Your task to perform on an android device: Search for pizza restaurants on Maps Image 0: 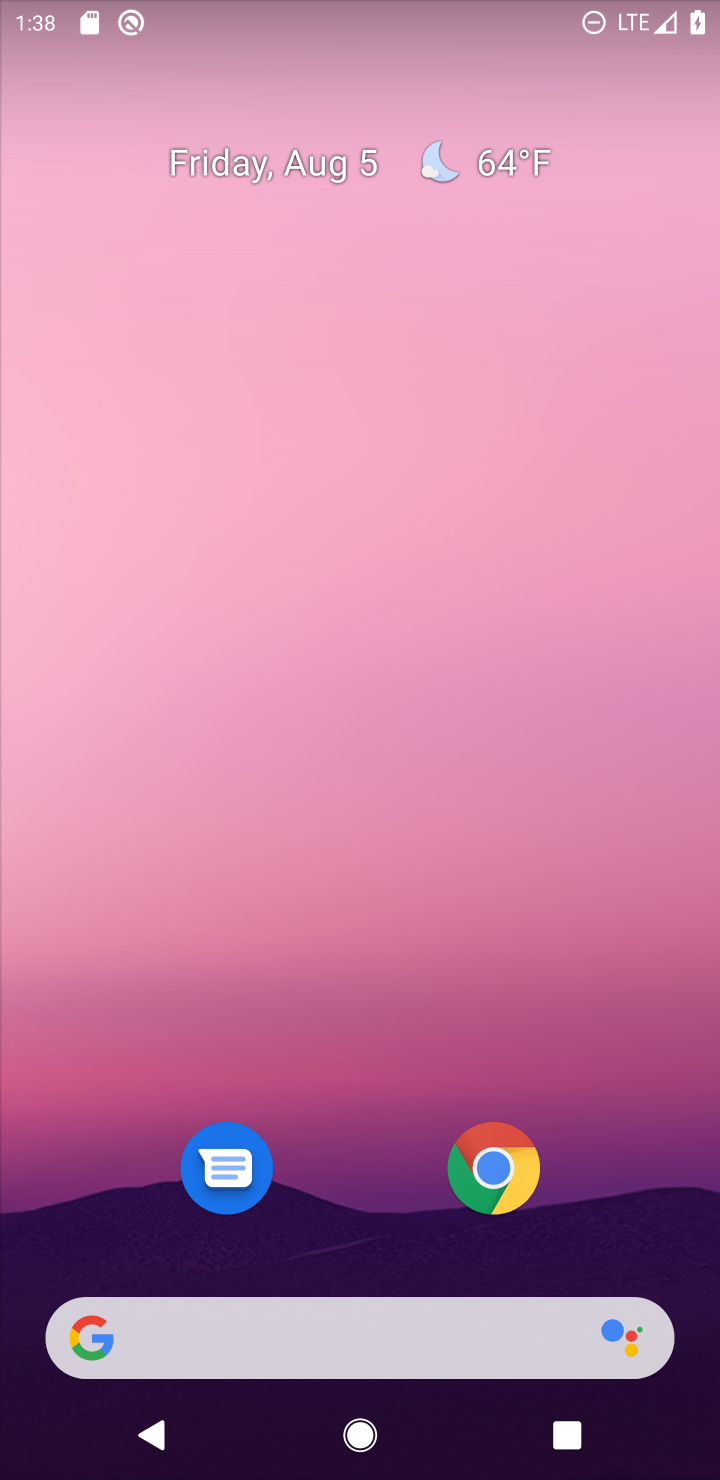
Step 0: drag from (687, 1247) to (401, 3)
Your task to perform on an android device: Search for pizza restaurants on Maps Image 1: 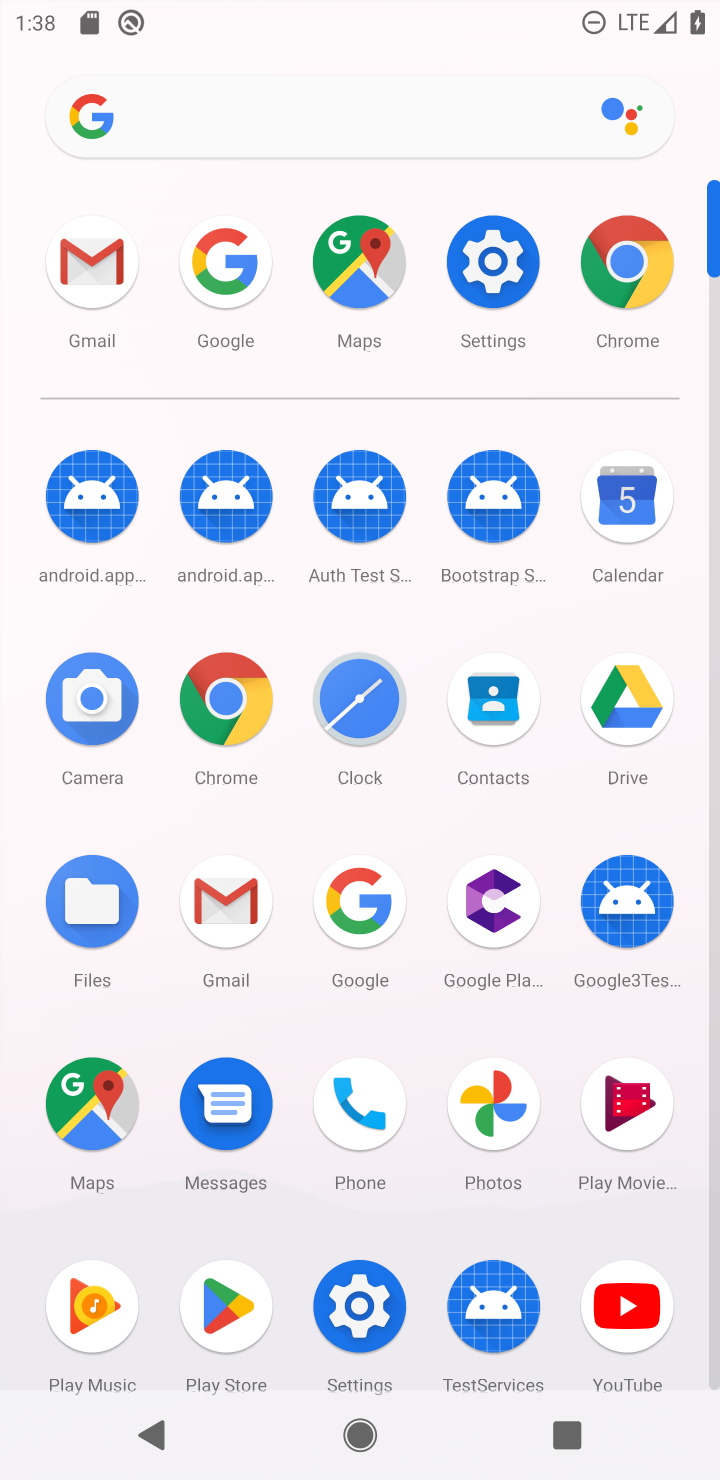
Step 1: click (107, 1138)
Your task to perform on an android device: Search for pizza restaurants on Maps Image 2: 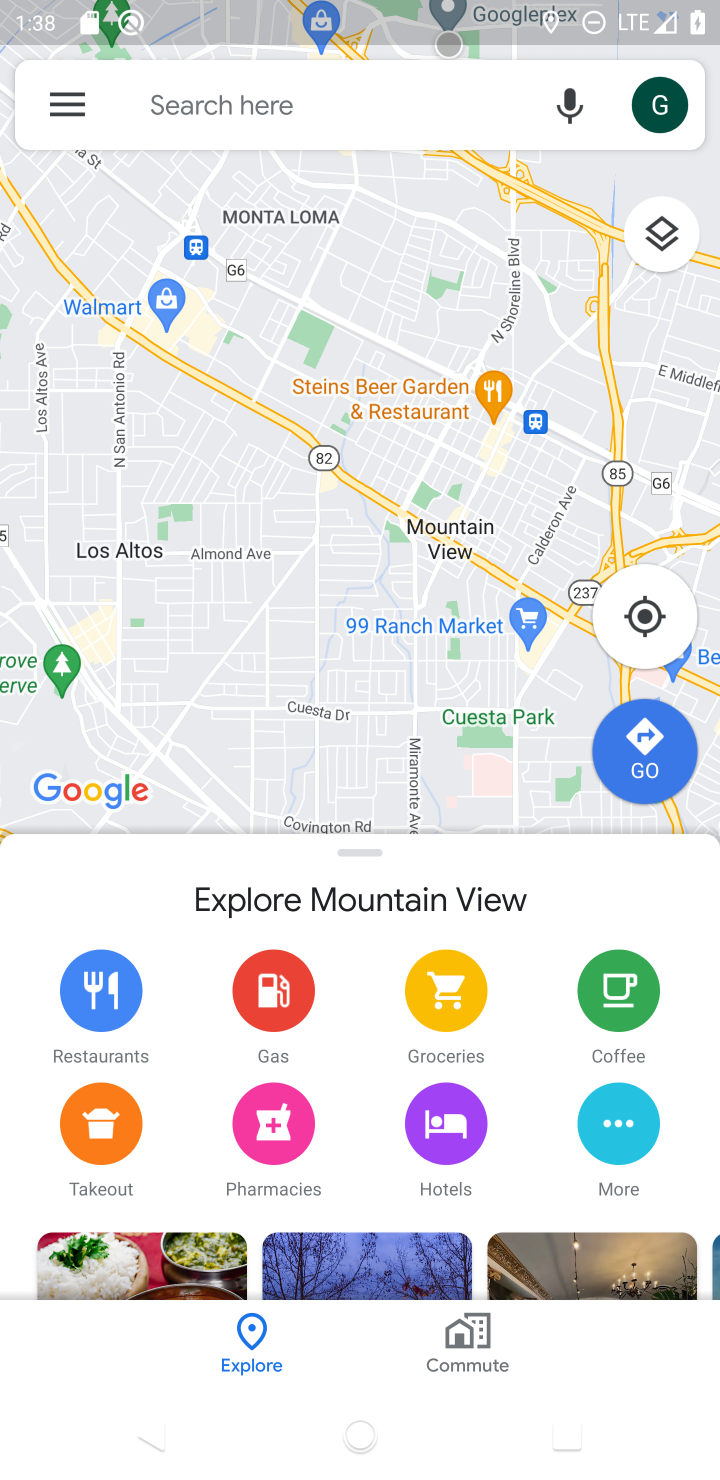
Step 2: click (203, 111)
Your task to perform on an android device: Search for pizza restaurants on Maps Image 3: 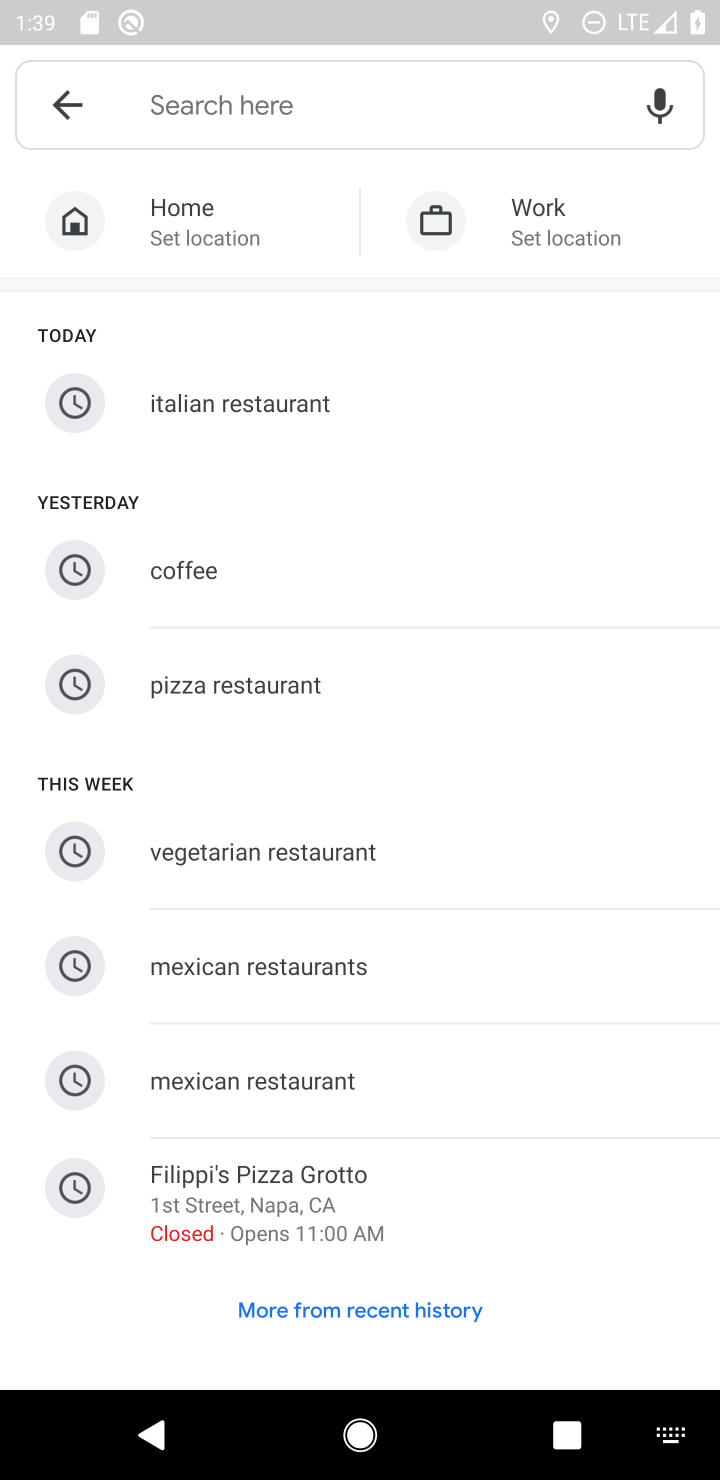
Step 3: type "pizza restaurants"
Your task to perform on an android device: Search for pizza restaurants on Maps Image 4: 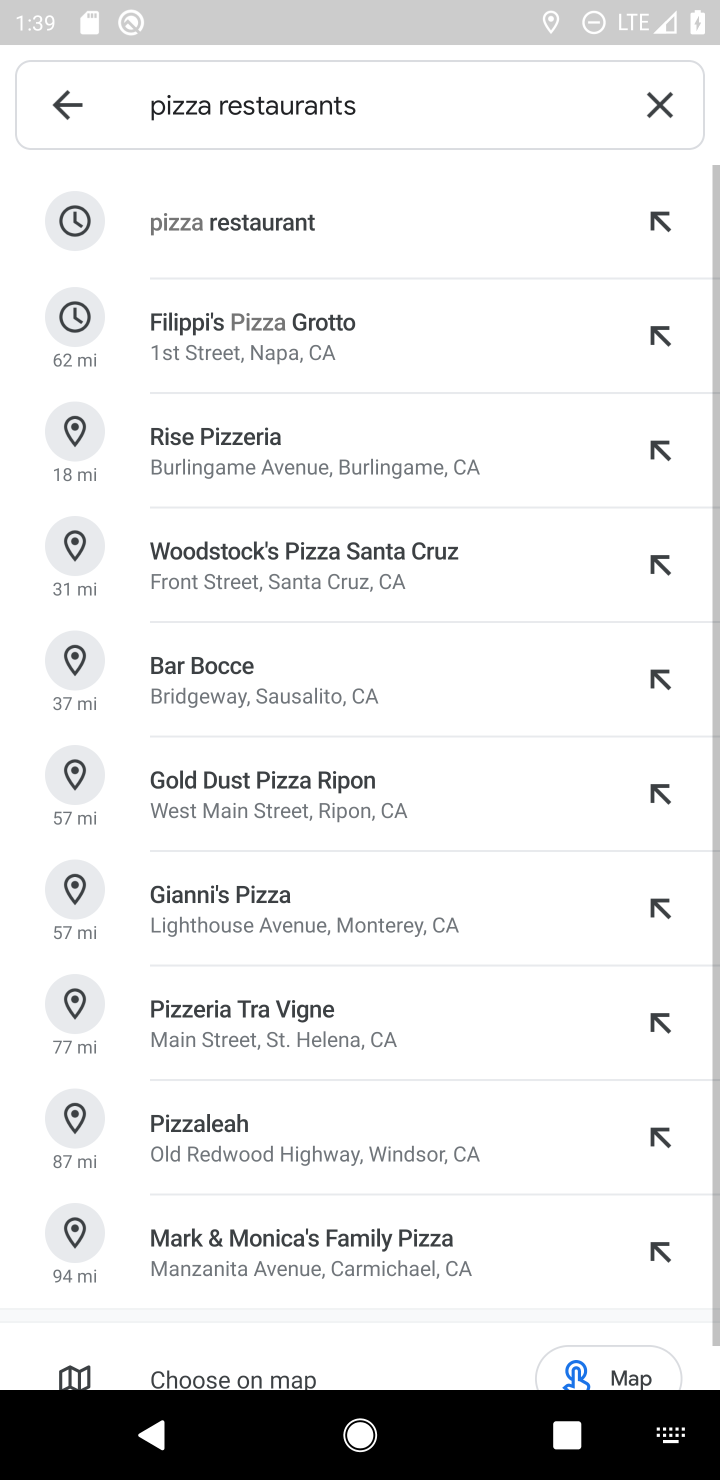
Step 4: click (169, 224)
Your task to perform on an android device: Search for pizza restaurants on Maps Image 5: 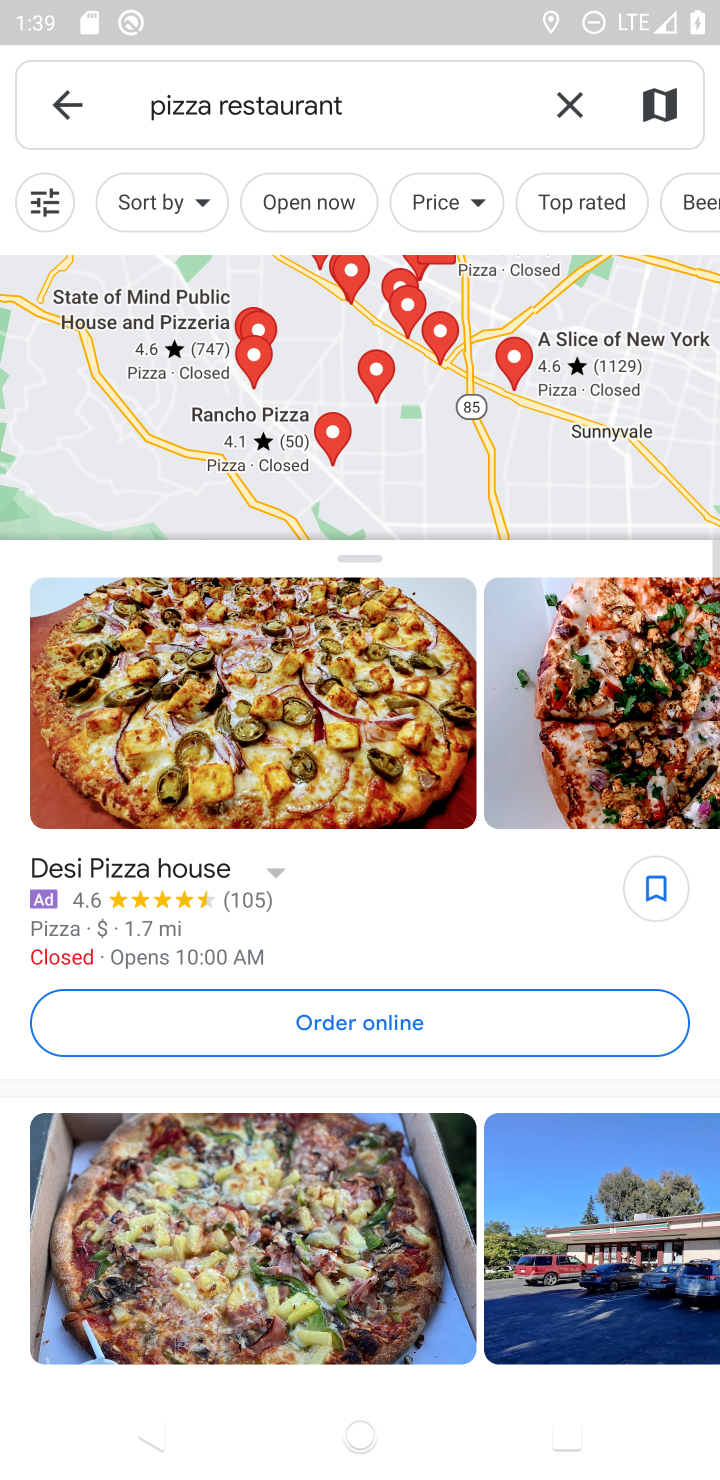
Step 5: task complete